Your task to perform on an android device: visit the assistant section in the google photos Image 0: 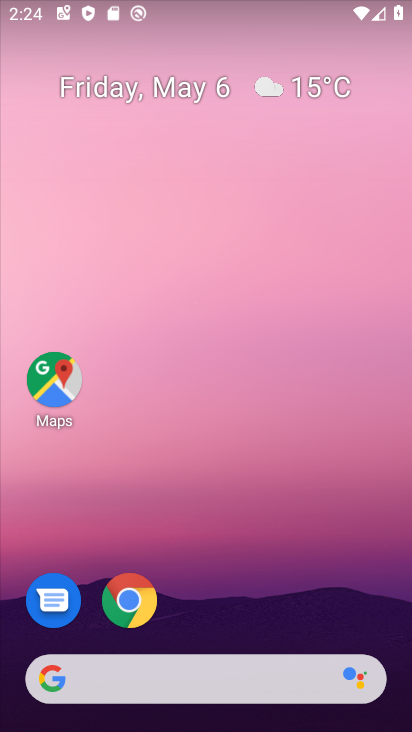
Step 0: drag from (279, 582) to (240, 15)
Your task to perform on an android device: visit the assistant section in the google photos Image 1: 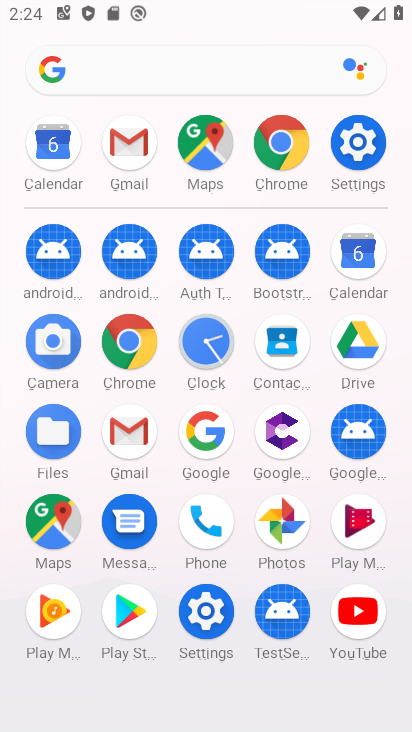
Step 1: click (274, 519)
Your task to perform on an android device: visit the assistant section in the google photos Image 2: 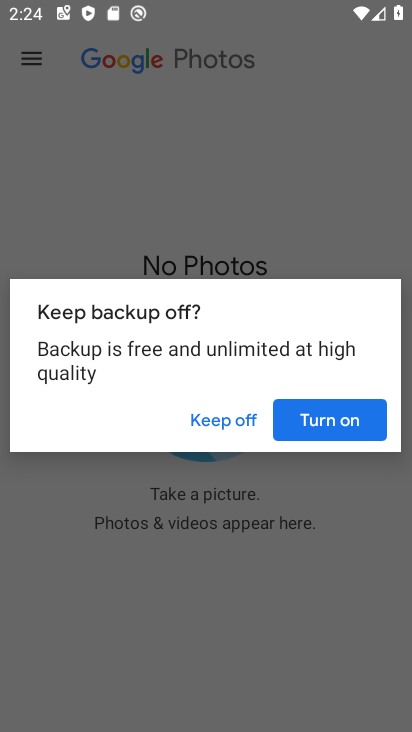
Step 2: press back button
Your task to perform on an android device: visit the assistant section in the google photos Image 3: 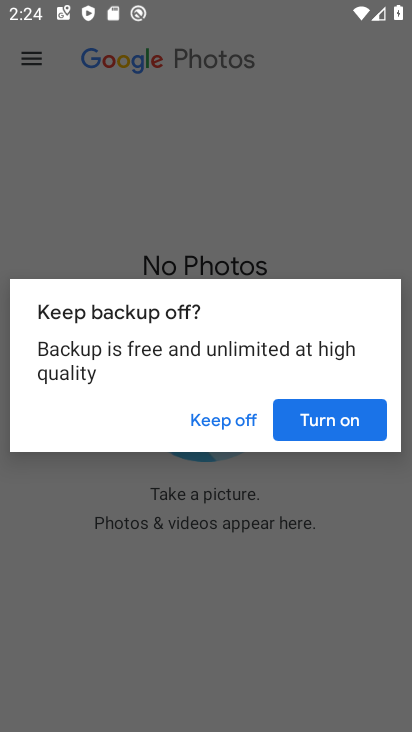
Step 3: click (306, 414)
Your task to perform on an android device: visit the assistant section in the google photos Image 4: 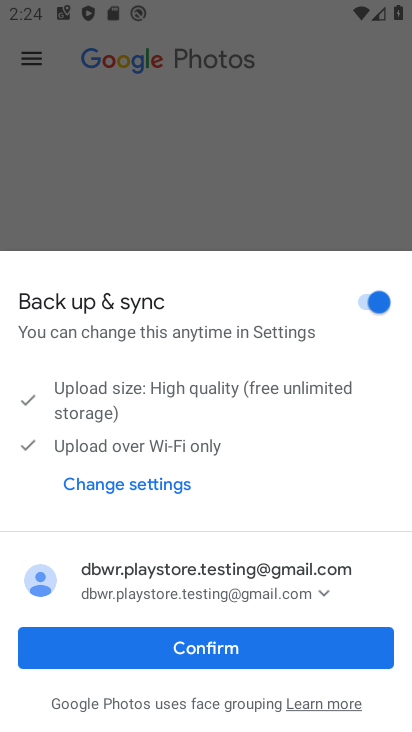
Step 4: click (255, 645)
Your task to perform on an android device: visit the assistant section in the google photos Image 5: 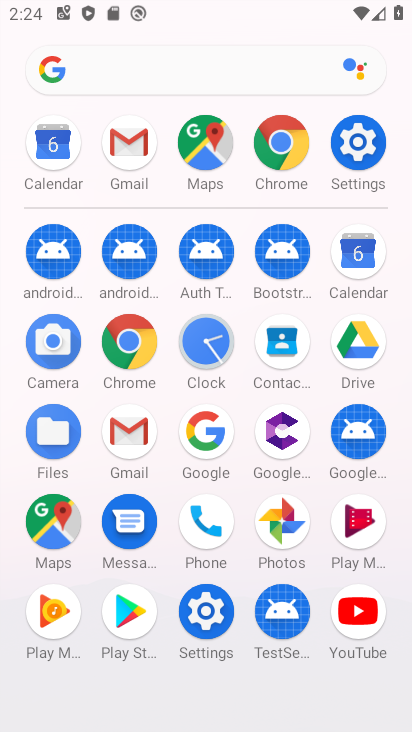
Step 5: click (286, 515)
Your task to perform on an android device: visit the assistant section in the google photos Image 6: 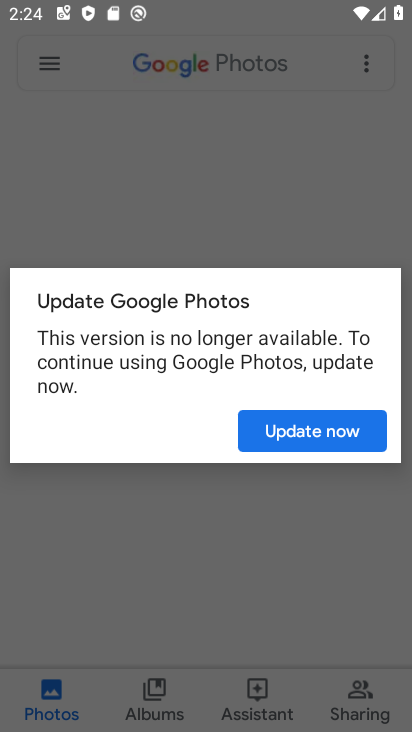
Step 6: click (318, 429)
Your task to perform on an android device: visit the assistant section in the google photos Image 7: 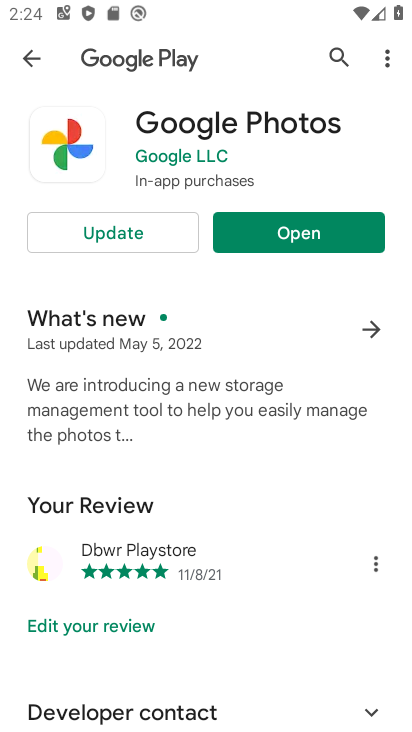
Step 7: click (156, 240)
Your task to perform on an android device: visit the assistant section in the google photos Image 8: 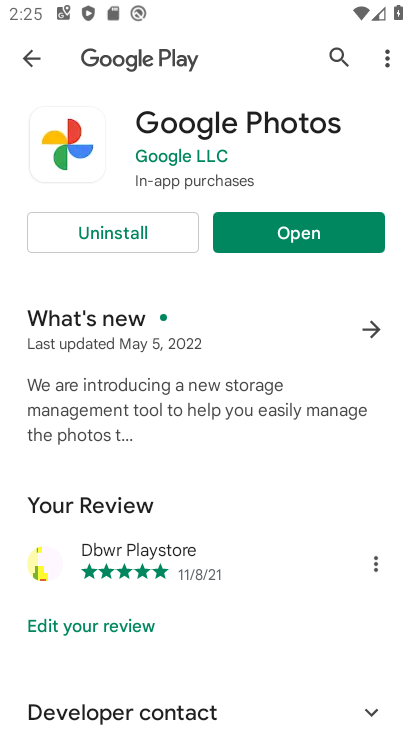
Step 8: click (302, 233)
Your task to perform on an android device: visit the assistant section in the google photos Image 9: 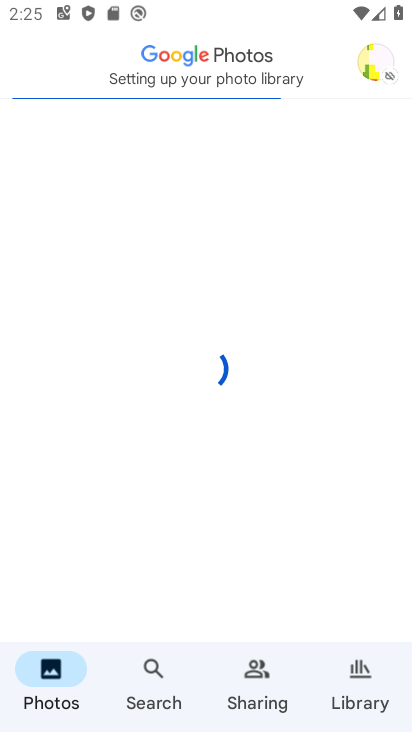
Step 9: click (162, 685)
Your task to perform on an android device: visit the assistant section in the google photos Image 10: 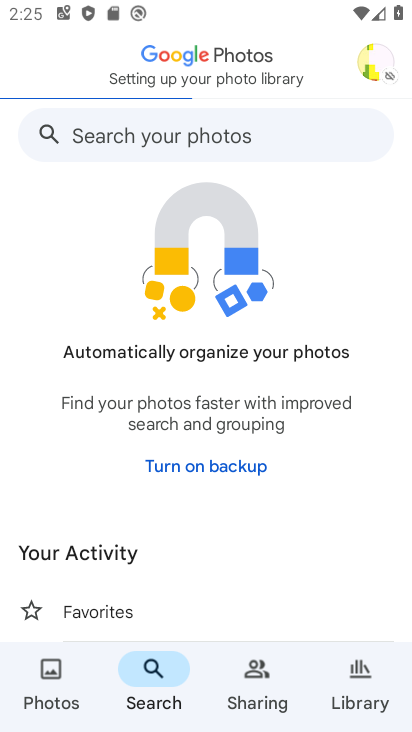
Step 10: click (241, 662)
Your task to perform on an android device: visit the assistant section in the google photos Image 11: 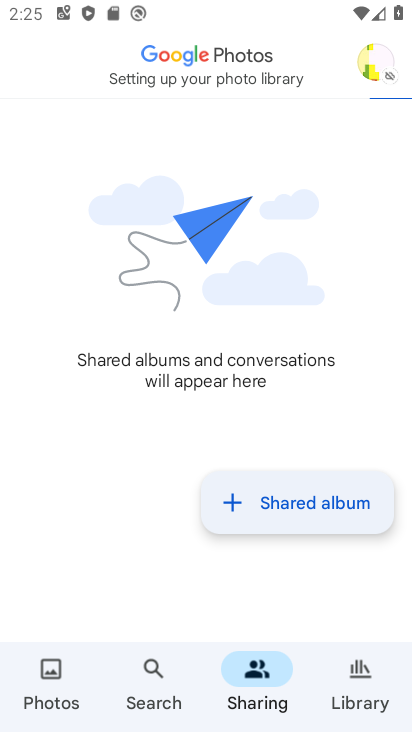
Step 11: task complete